Your task to perform on an android device: Go to accessibility settings Image 0: 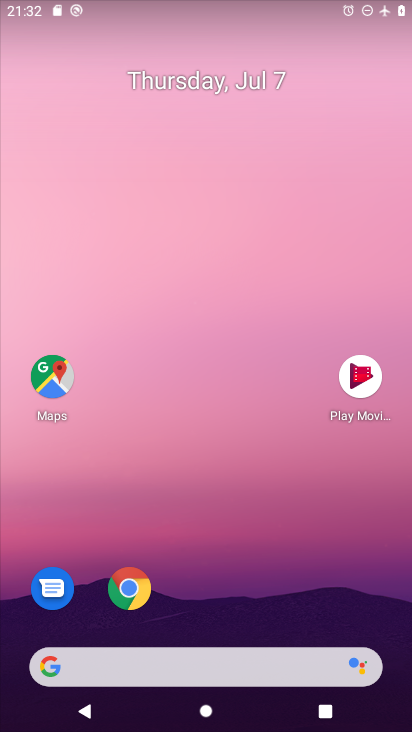
Step 0: click (173, 349)
Your task to perform on an android device: Go to accessibility settings Image 1: 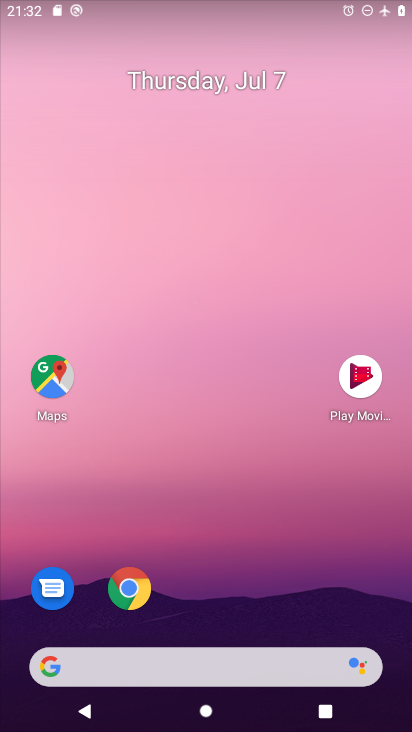
Step 1: drag from (189, 563) to (207, 231)
Your task to perform on an android device: Go to accessibility settings Image 2: 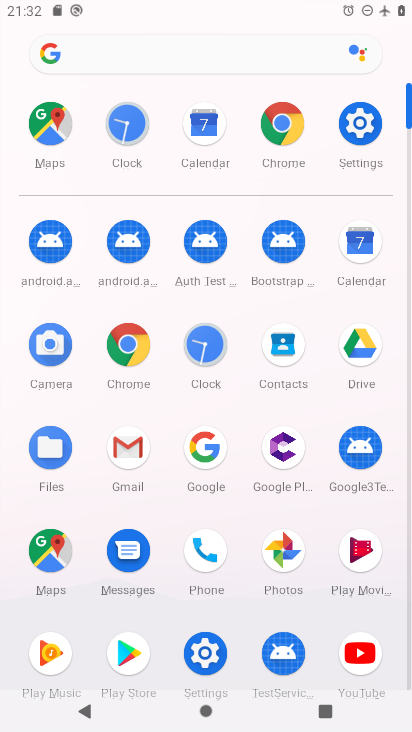
Step 2: click (367, 108)
Your task to perform on an android device: Go to accessibility settings Image 3: 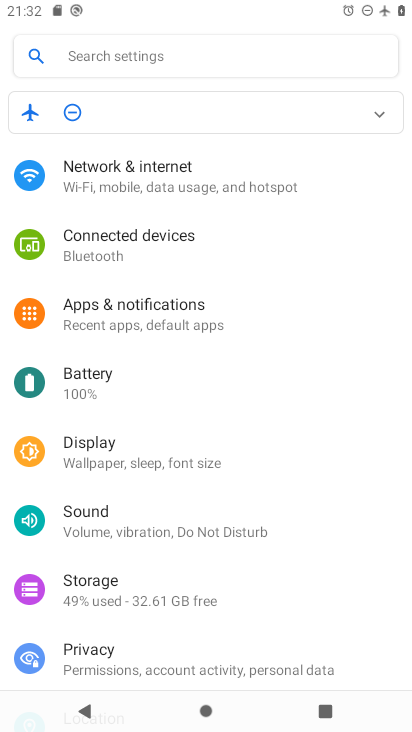
Step 3: drag from (164, 639) to (196, 184)
Your task to perform on an android device: Go to accessibility settings Image 4: 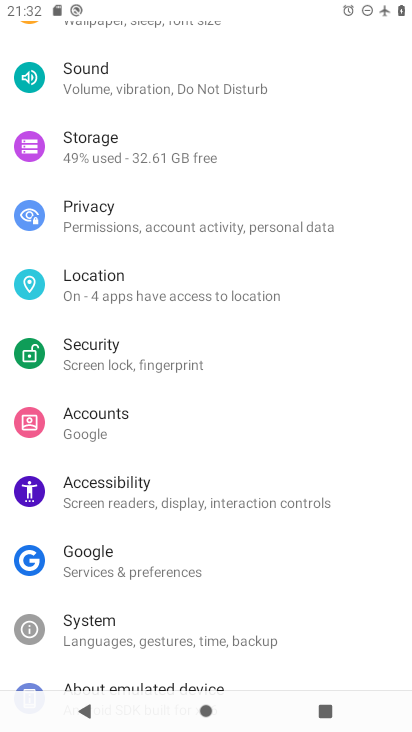
Step 4: click (161, 489)
Your task to perform on an android device: Go to accessibility settings Image 5: 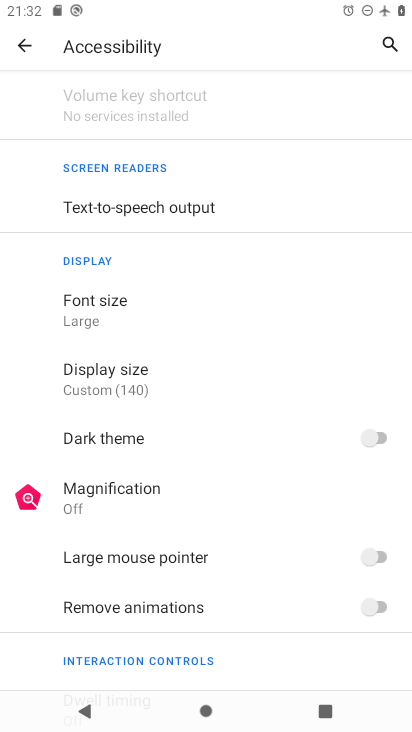
Step 5: task complete